Your task to perform on an android device: open the mobile data screen to see how much data has been used Image 0: 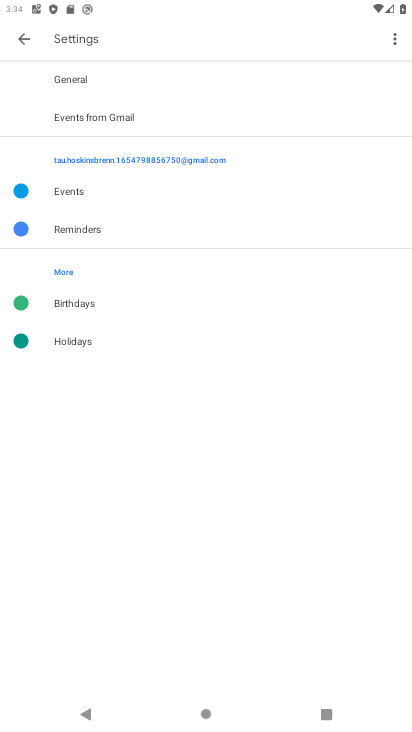
Step 0: press home button
Your task to perform on an android device: open the mobile data screen to see how much data has been used Image 1: 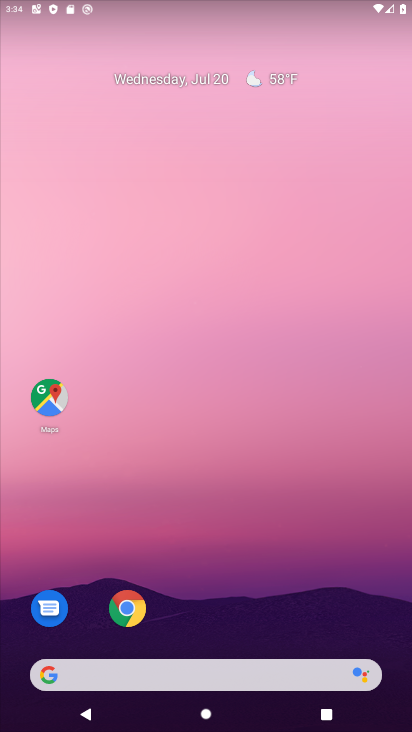
Step 1: drag from (222, 593) to (225, 11)
Your task to perform on an android device: open the mobile data screen to see how much data has been used Image 2: 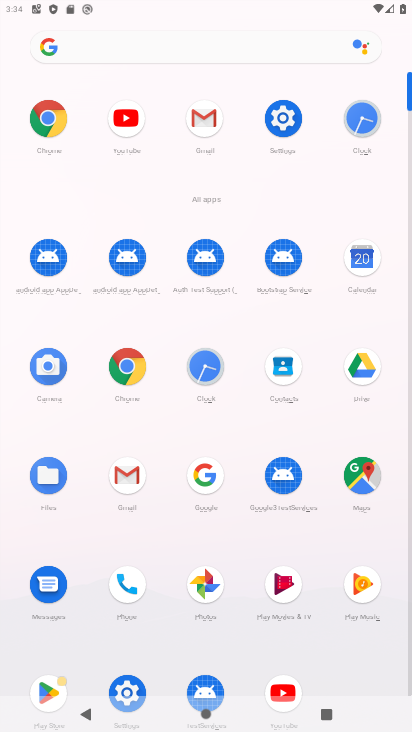
Step 2: click (288, 132)
Your task to perform on an android device: open the mobile data screen to see how much data has been used Image 3: 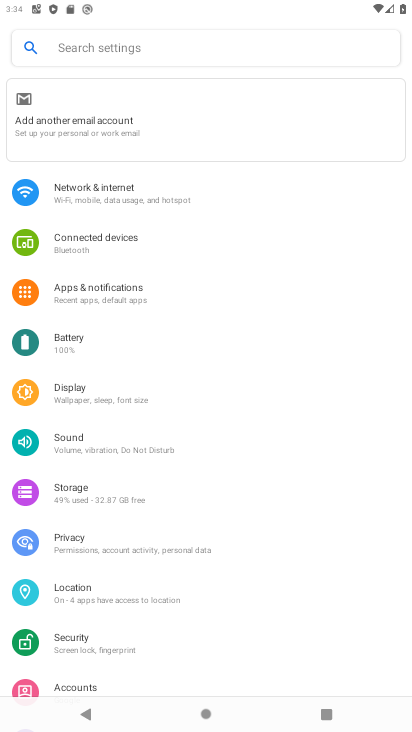
Step 3: click (149, 193)
Your task to perform on an android device: open the mobile data screen to see how much data has been used Image 4: 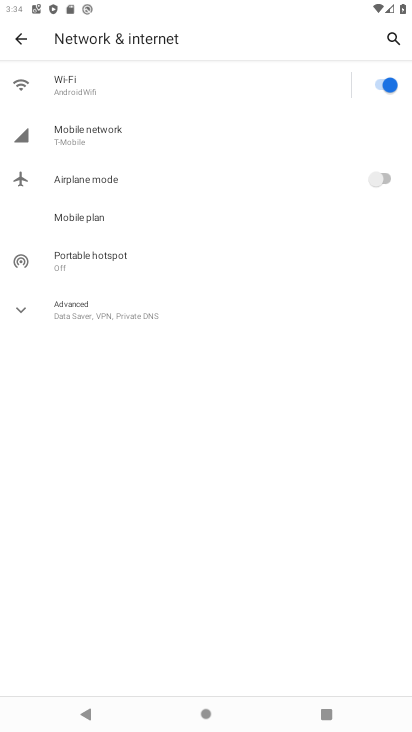
Step 4: click (133, 213)
Your task to perform on an android device: open the mobile data screen to see how much data has been used Image 5: 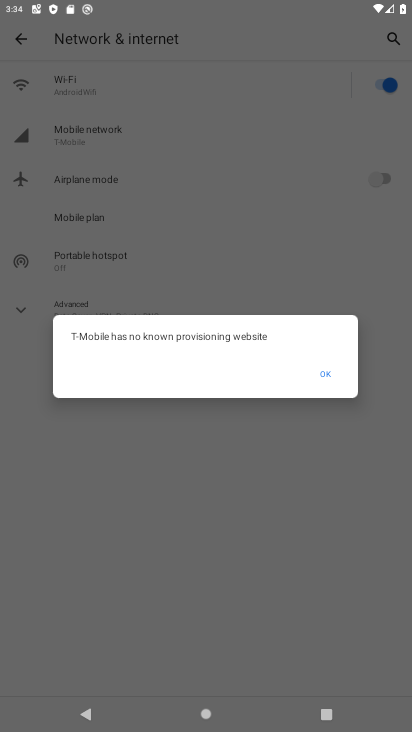
Step 5: click (317, 375)
Your task to perform on an android device: open the mobile data screen to see how much data has been used Image 6: 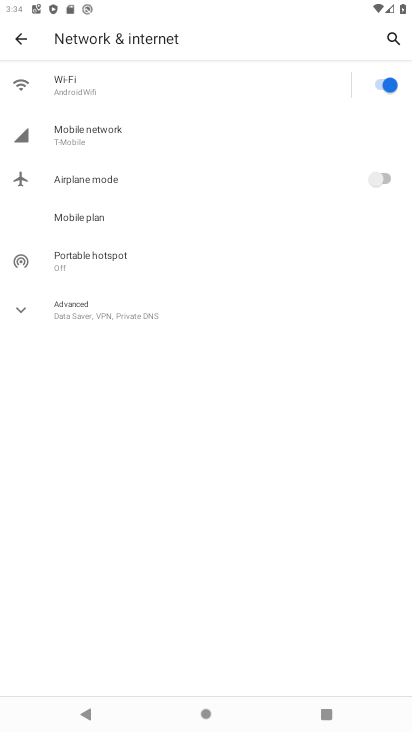
Step 6: task complete